Your task to perform on an android device: Search for a new phone on Amazon. Image 0: 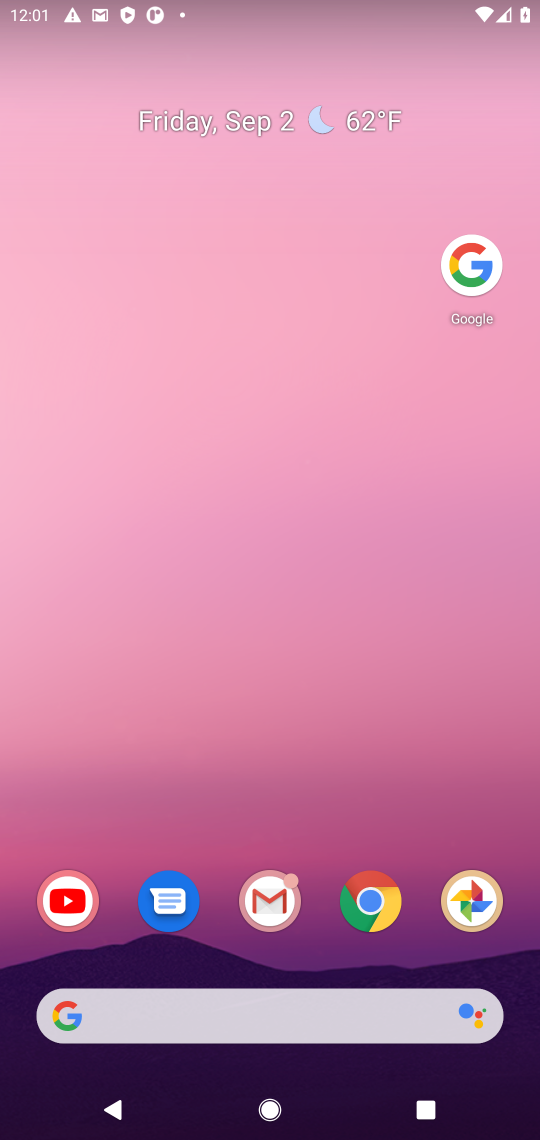
Step 0: drag from (230, 575) to (230, 387)
Your task to perform on an android device: Search for a new phone on Amazon. Image 1: 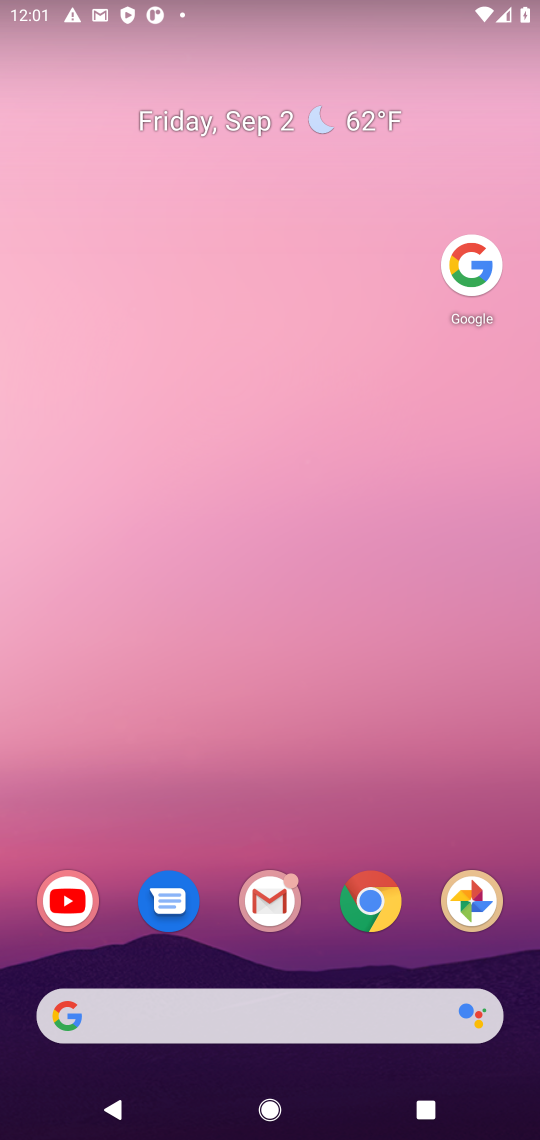
Step 1: click (278, 331)
Your task to perform on an android device: Search for a new phone on Amazon. Image 2: 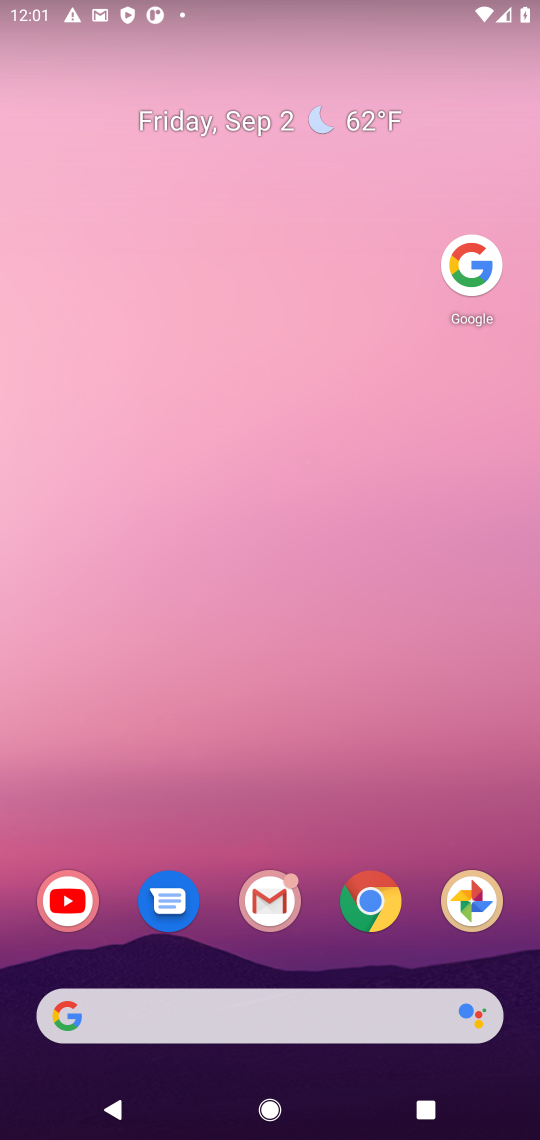
Step 2: click (251, 515)
Your task to perform on an android device: Search for a new phone on Amazon. Image 3: 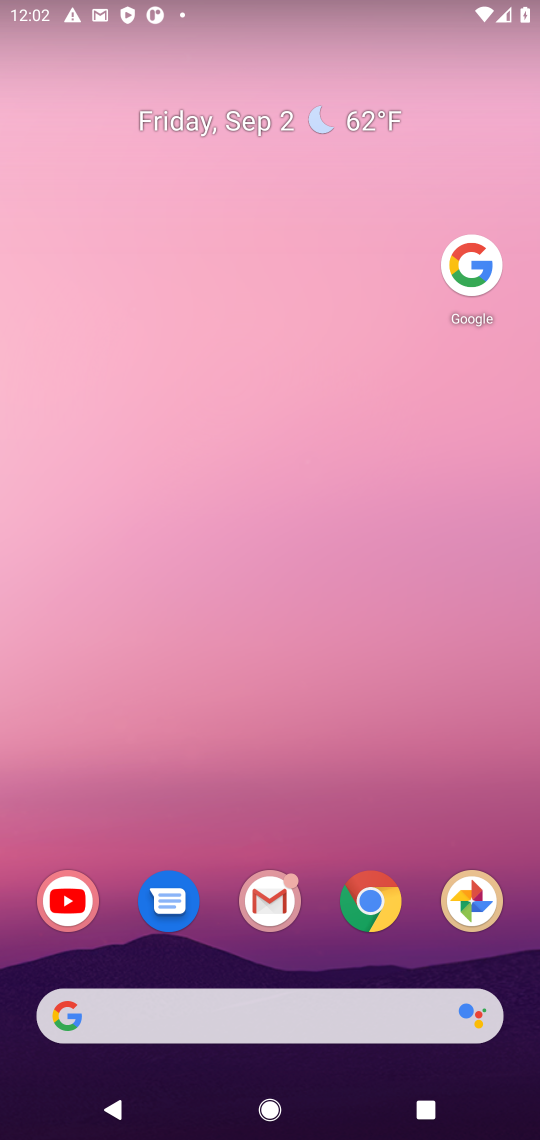
Step 3: click (496, 254)
Your task to perform on an android device: Search for a new phone on Amazon. Image 4: 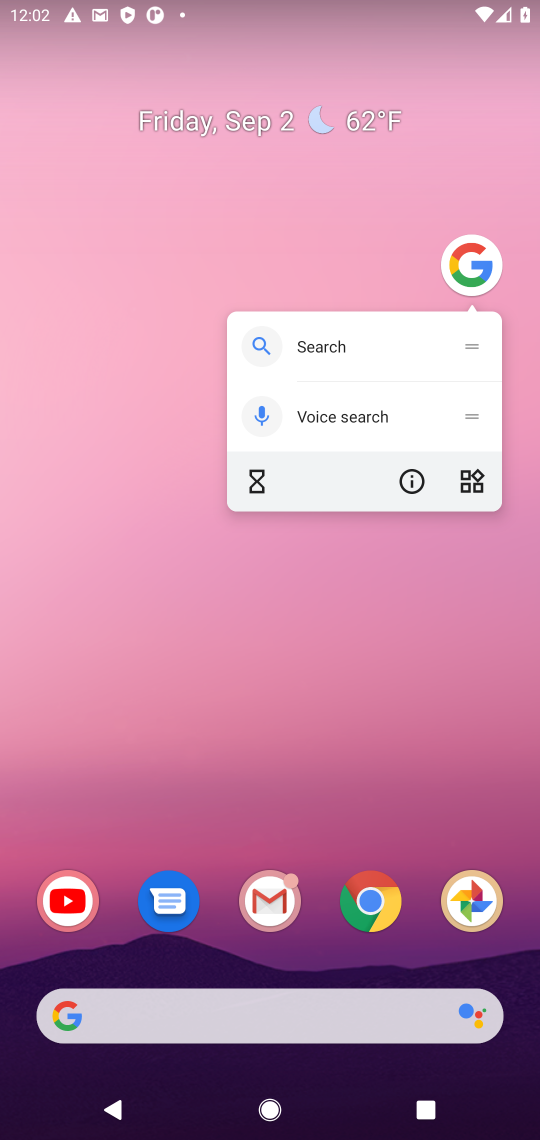
Step 4: click (472, 266)
Your task to perform on an android device: Search for a new phone on Amazon. Image 5: 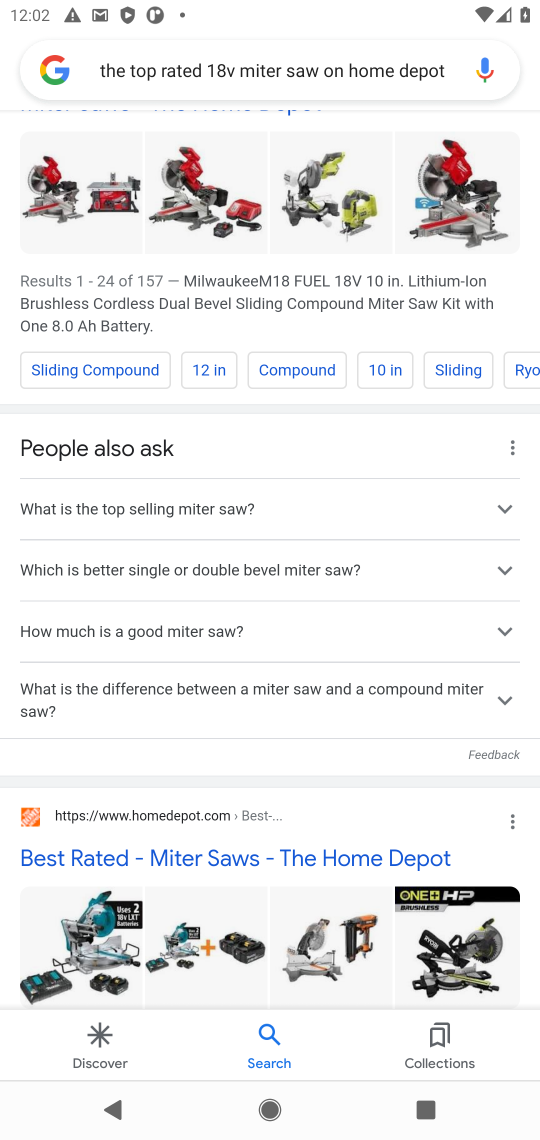
Step 5: drag from (217, 892) to (298, 279)
Your task to perform on an android device: Search for a new phone on Amazon. Image 6: 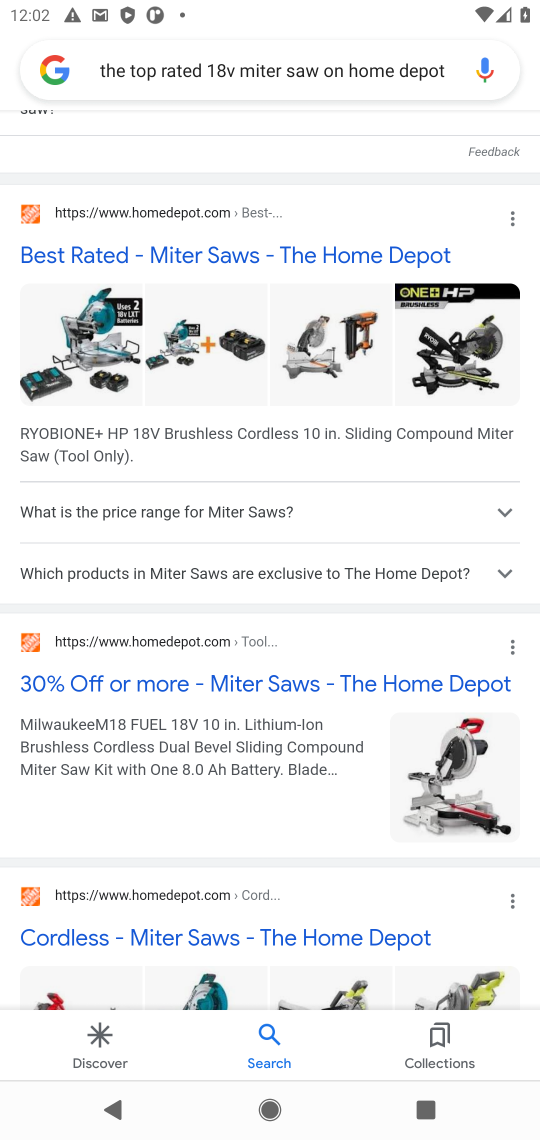
Step 6: click (339, 77)
Your task to perform on an android device: Search for a new phone on Amazon. Image 7: 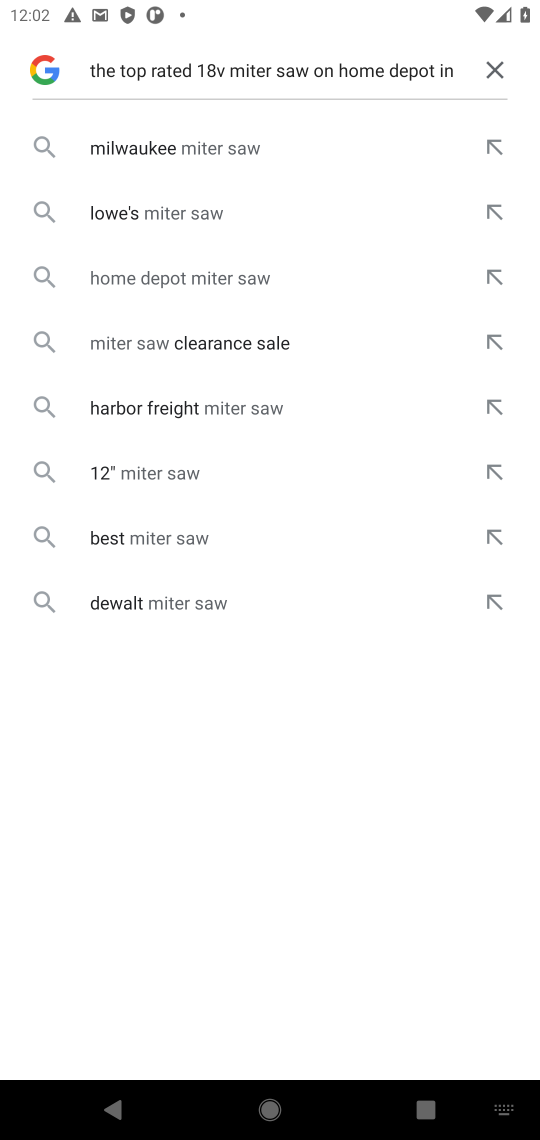
Step 7: click (496, 67)
Your task to perform on an android device: Search for a new phone on Amazon. Image 8: 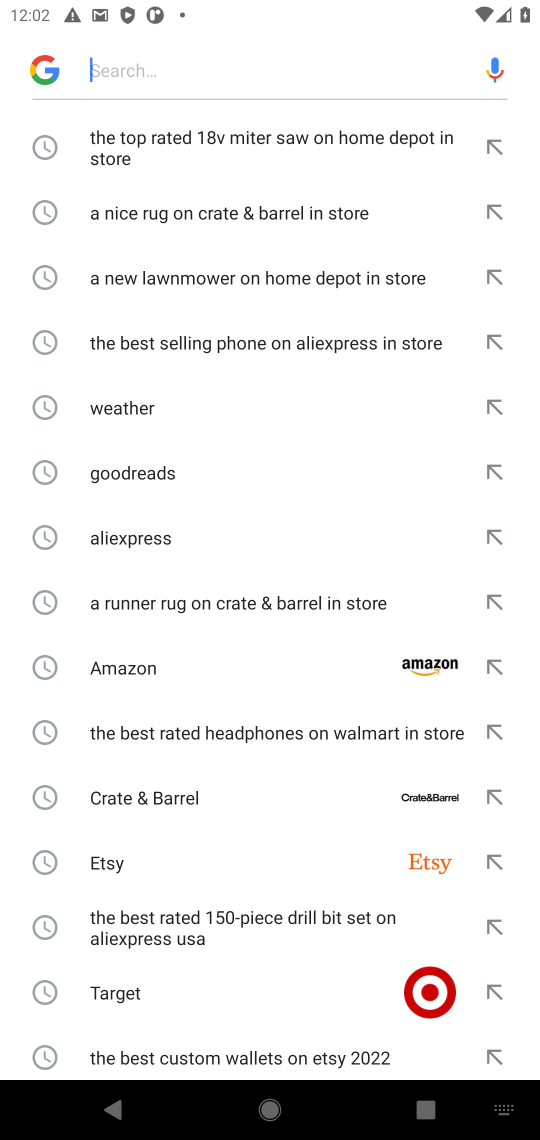
Step 8: click (201, 50)
Your task to perform on an android device: Search for a new phone on Amazon. Image 9: 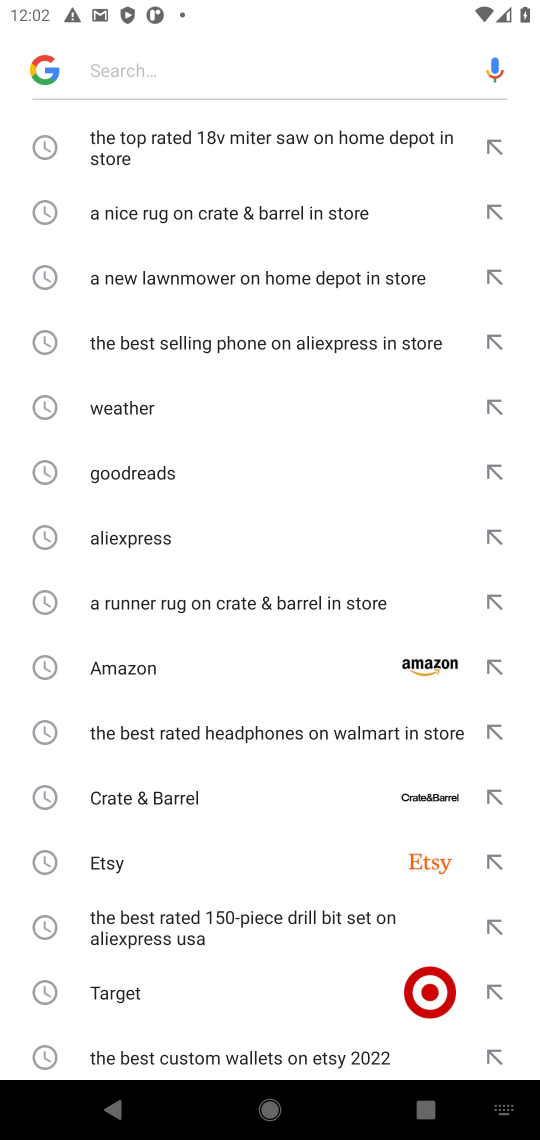
Step 9: type " new phone on Amazon "
Your task to perform on an android device: Search for a new phone on Amazon. Image 10: 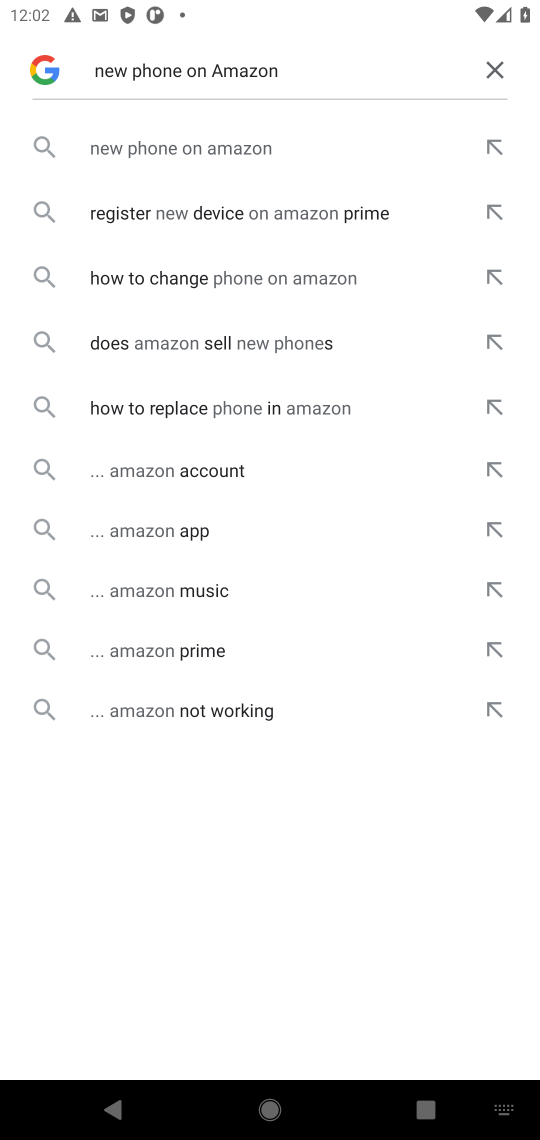
Step 10: click (148, 159)
Your task to perform on an android device: Search for a new phone on Amazon. Image 11: 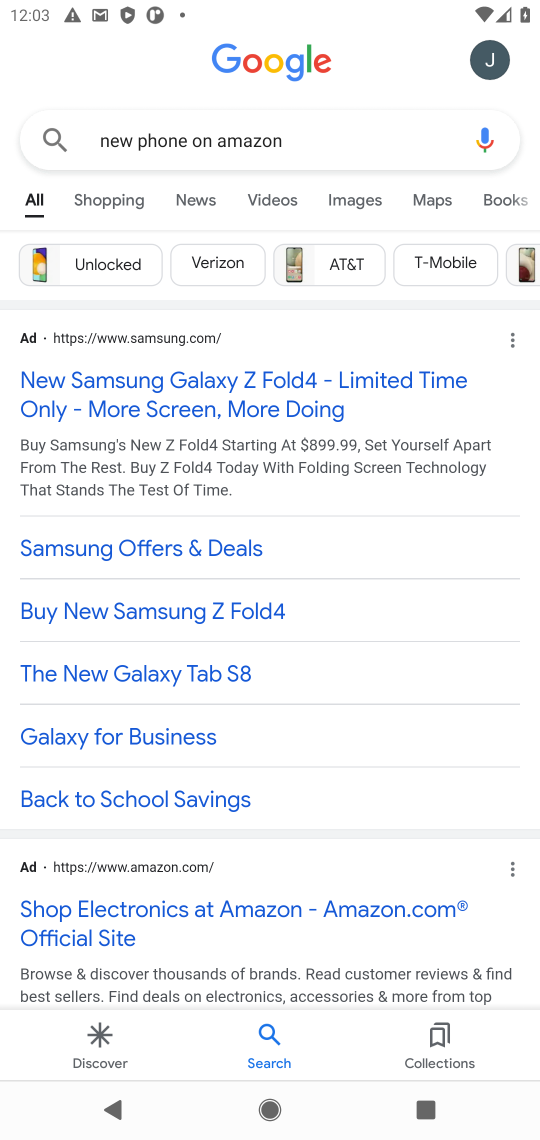
Step 11: drag from (264, 748) to (340, 355)
Your task to perform on an android device: Search for a new phone on Amazon. Image 12: 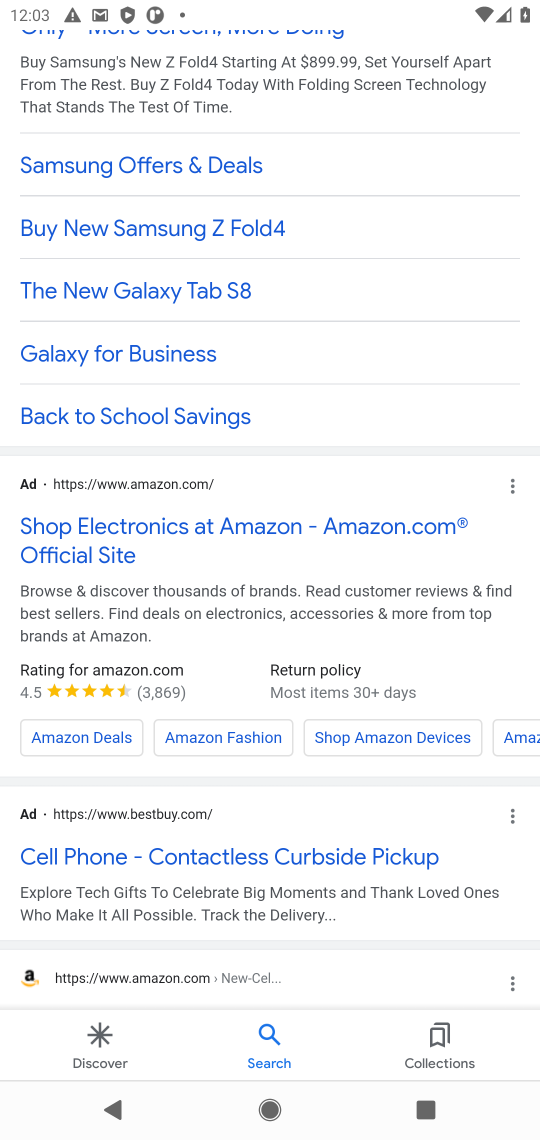
Step 12: drag from (244, 279) to (214, 724)
Your task to perform on an android device: Search for a new phone on Amazon. Image 13: 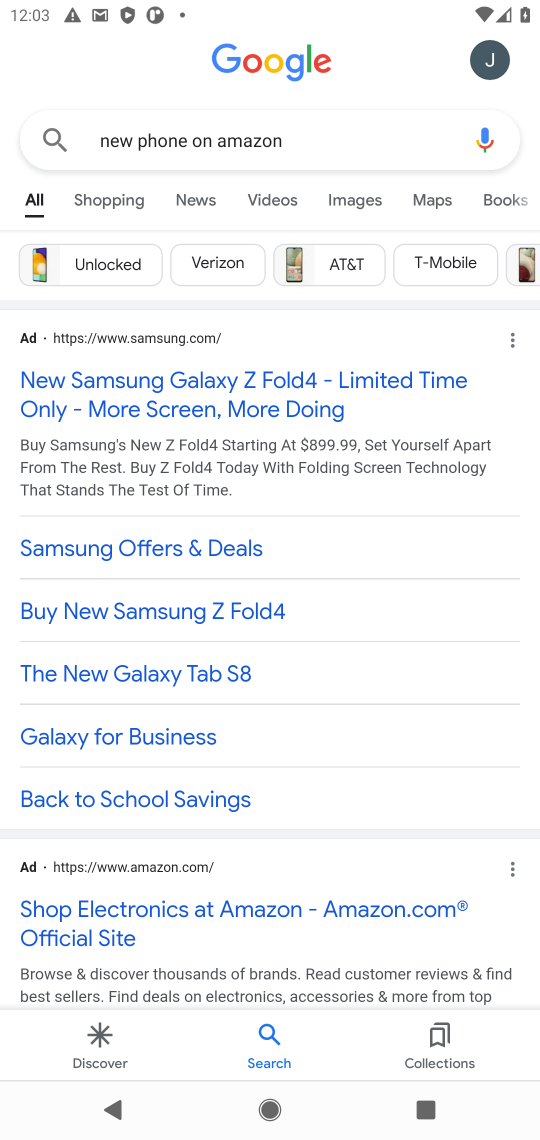
Step 13: click (239, 377)
Your task to perform on an android device: Search for a new phone on Amazon. Image 14: 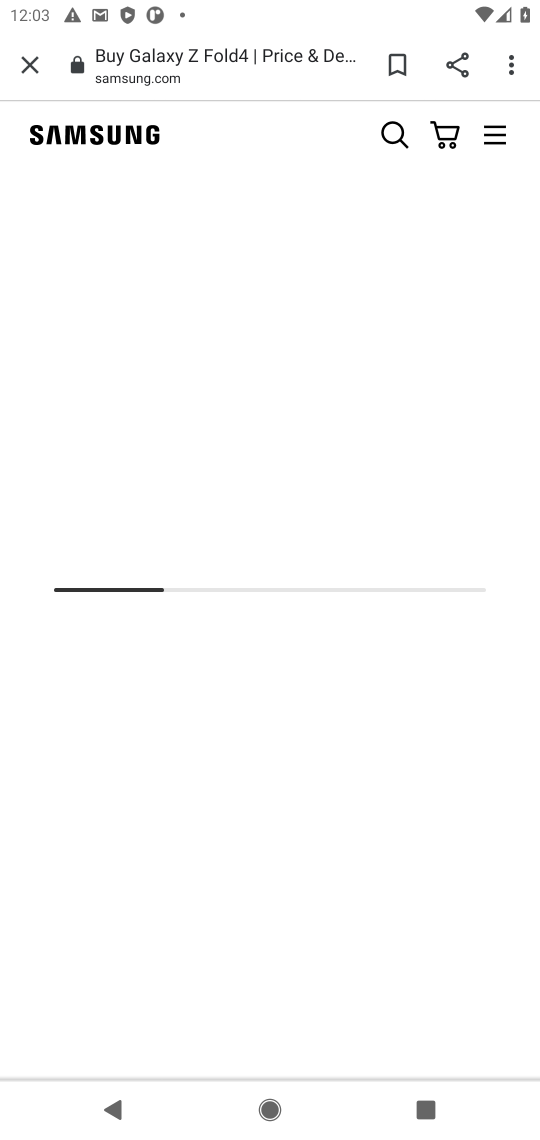
Step 14: click (5, 55)
Your task to perform on an android device: Search for a new phone on Amazon. Image 15: 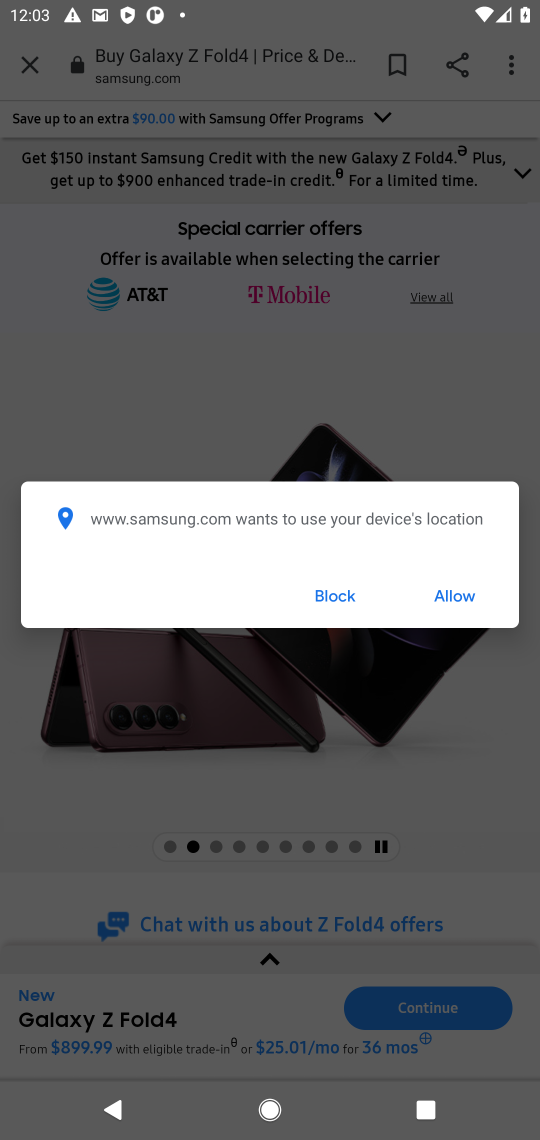
Step 15: click (436, 585)
Your task to perform on an android device: Search for a new phone on Amazon. Image 16: 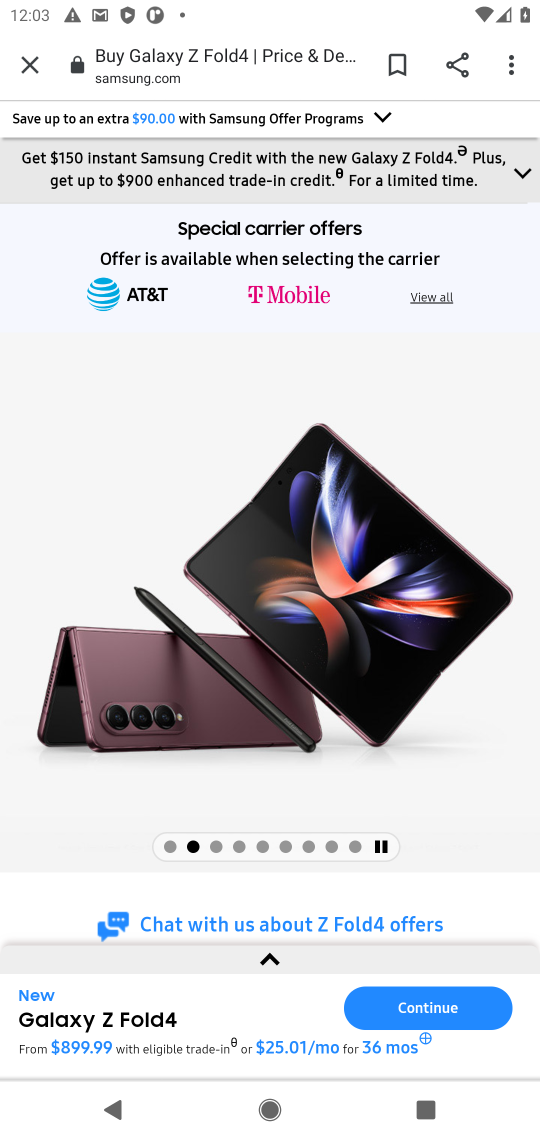
Step 16: click (37, 62)
Your task to perform on an android device: Search for a new phone on Amazon. Image 17: 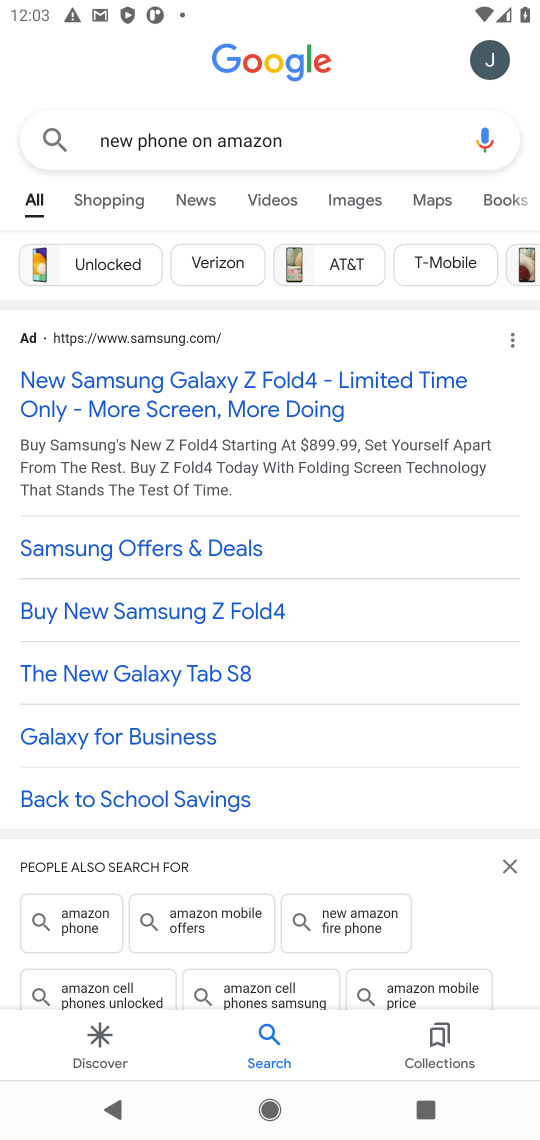
Step 17: drag from (372, 795) to (380, 311)
Your task to perform on an android device: Search for a new phone on Amazon. Image 18: 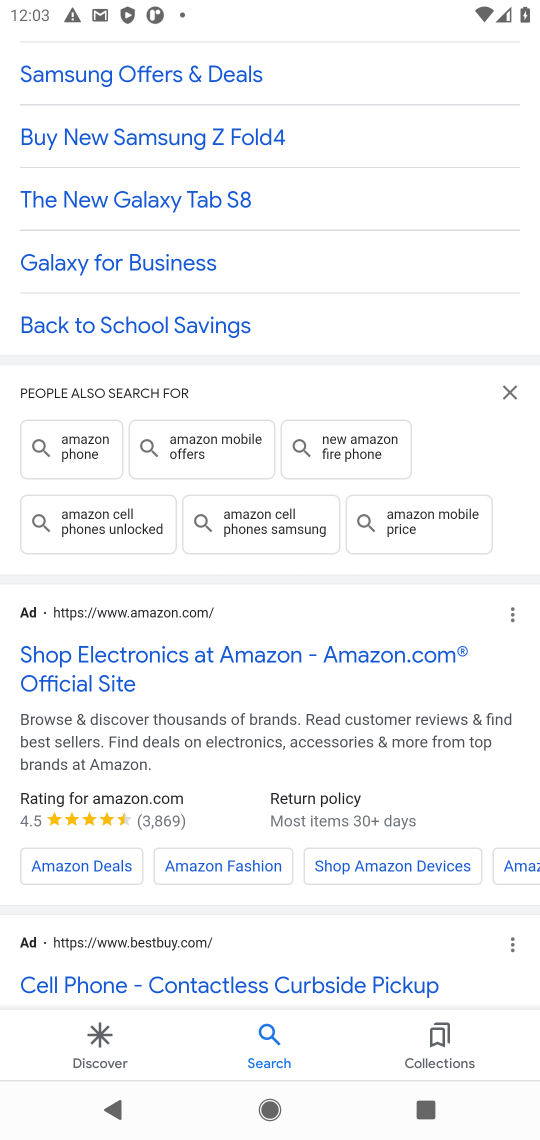
Step 18: drag from (232, 897) to (315, 281)
Your task to perform on an android device: Search for a new phone on Amazon. Image 19: 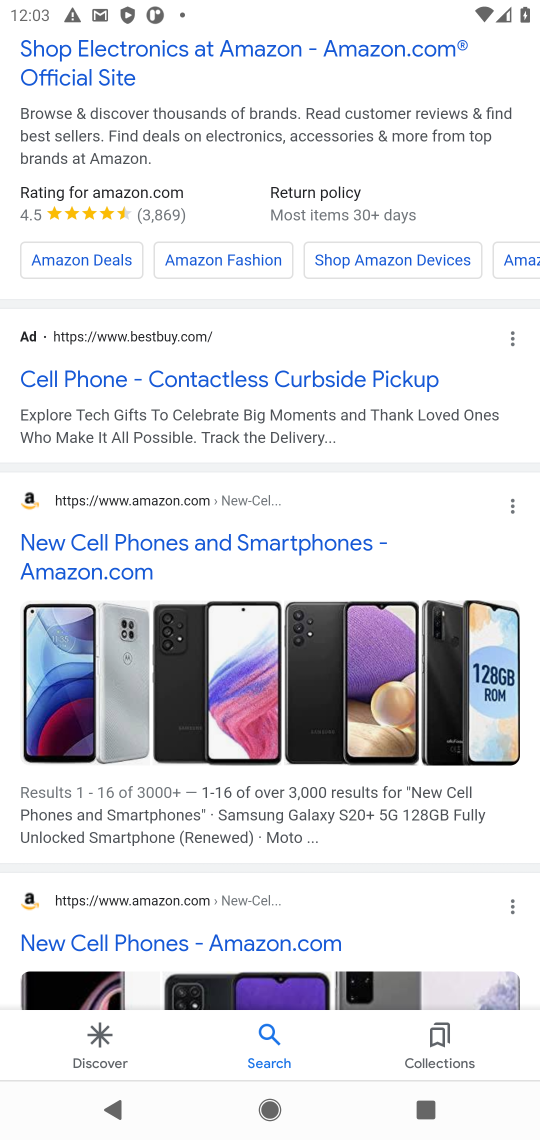
Step 19: click (212, 948)
Your task to perform on an android device: Search for a new phone on Amazon. Image 20: 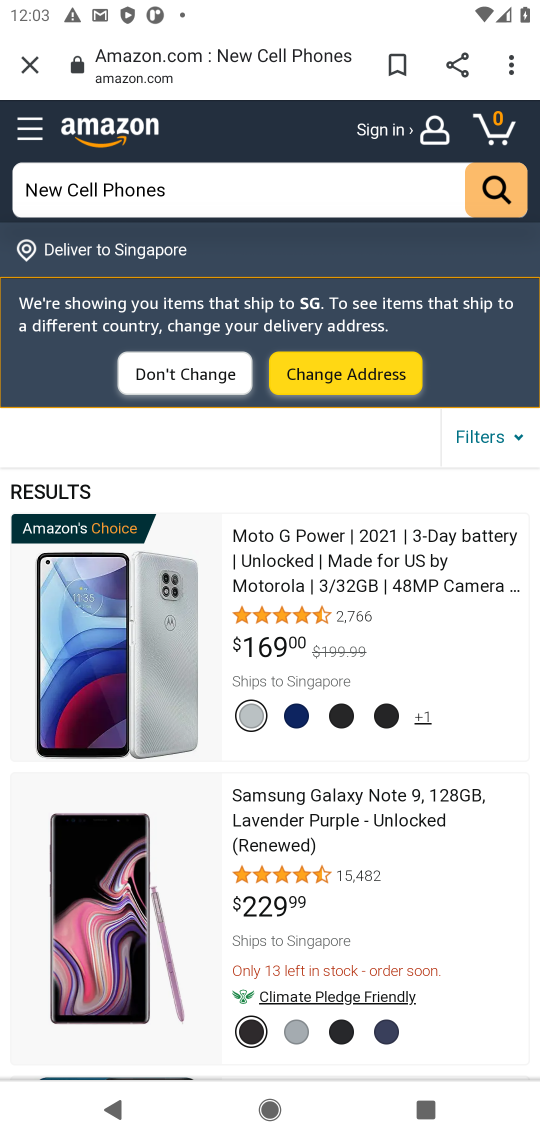
Step 20: task complete